Your task to perform on an android device: change alarm snooze length Image 0: 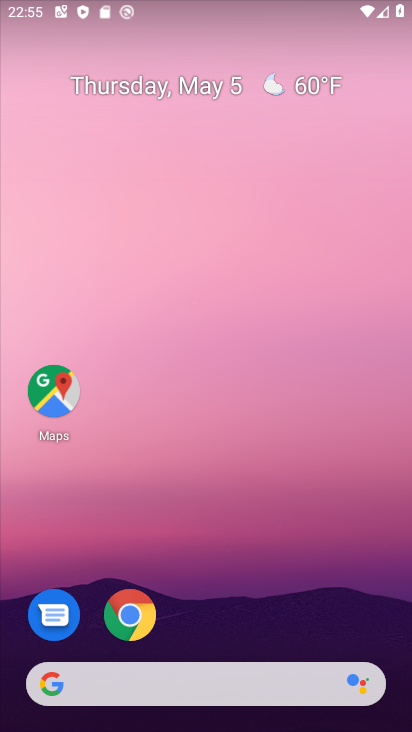
Step 0: drag from (245, 620) to (239, 174)
Your task to perform on an android device: change alarm snooze length Image 1: 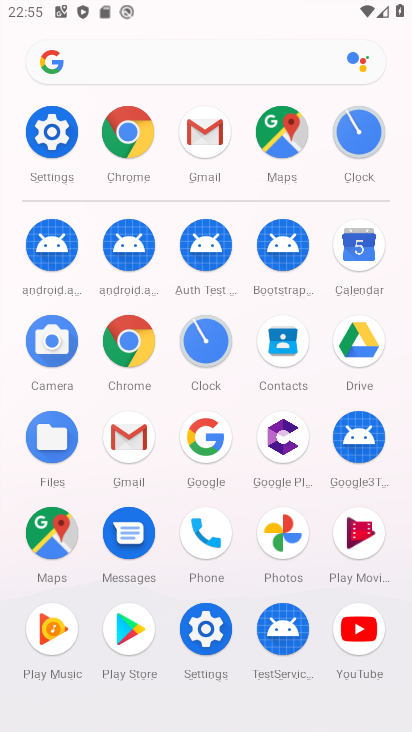
Step 1: click (216, 331)
Your task to perform on an android device: change alarm snooze length Image 2: 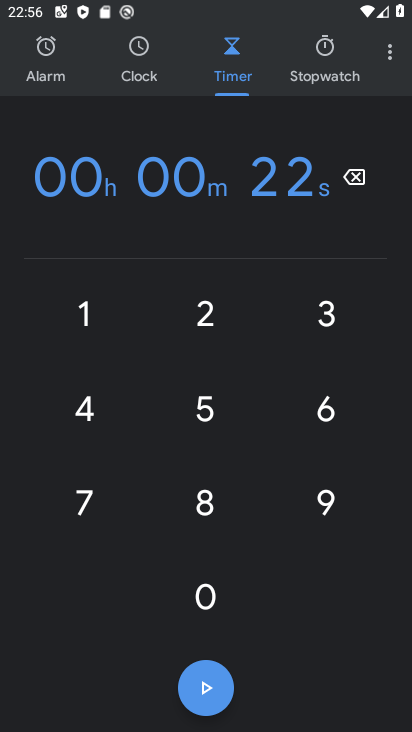
Step 2: click (375, 54)
Your task to perform on an android device: change alarm snooze length Image 3: 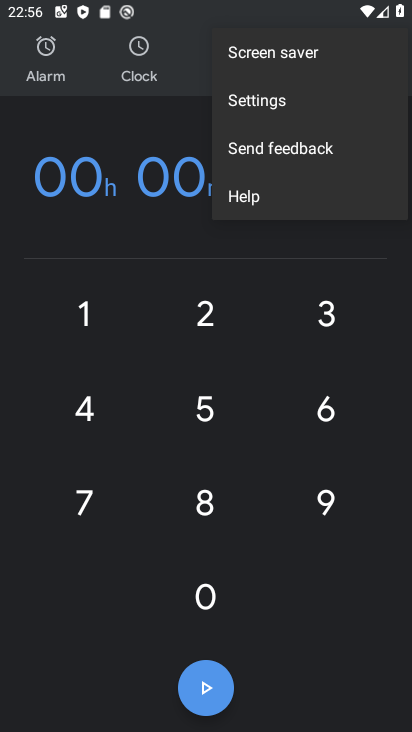
Step 3: click (255, 103)
Your task to perform on an android device: change alarm snooze length Image 4: 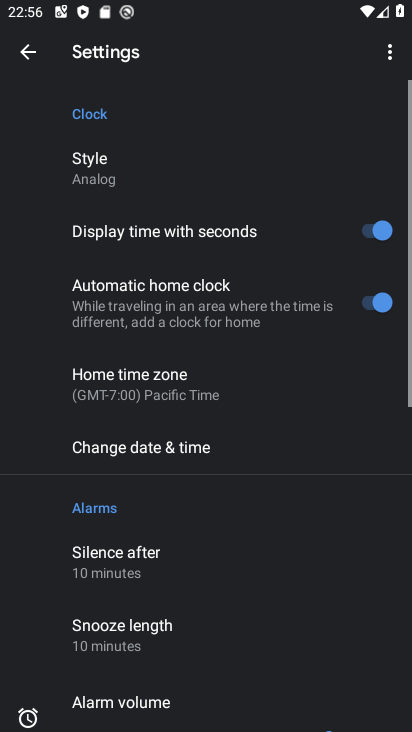
Step 4: drag from (197, 565) to (238, 238)
Your task to perform on an android device: change alarm snooze length Image 5: 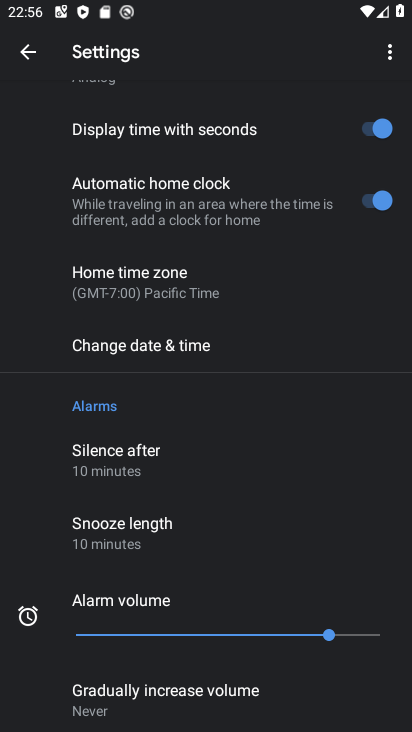
Step 5: click (159, 530)
Your task to perform on an android device: change alarm snooze length Image 6: 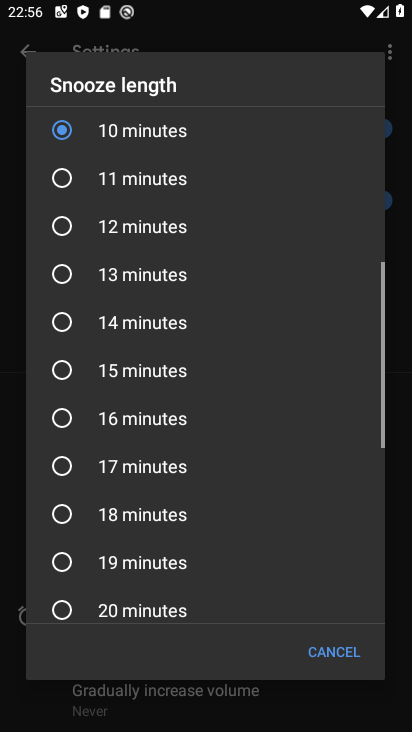
Step 6: click (63, 324)
Your task to perform on an android device: change alarm snooze length Image 7: 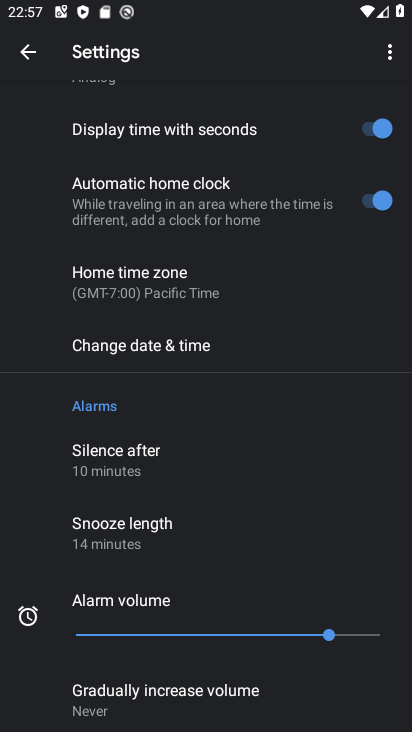
Step 7: task complete